Your task to perform on an android device: set the stopwatch Image 0: 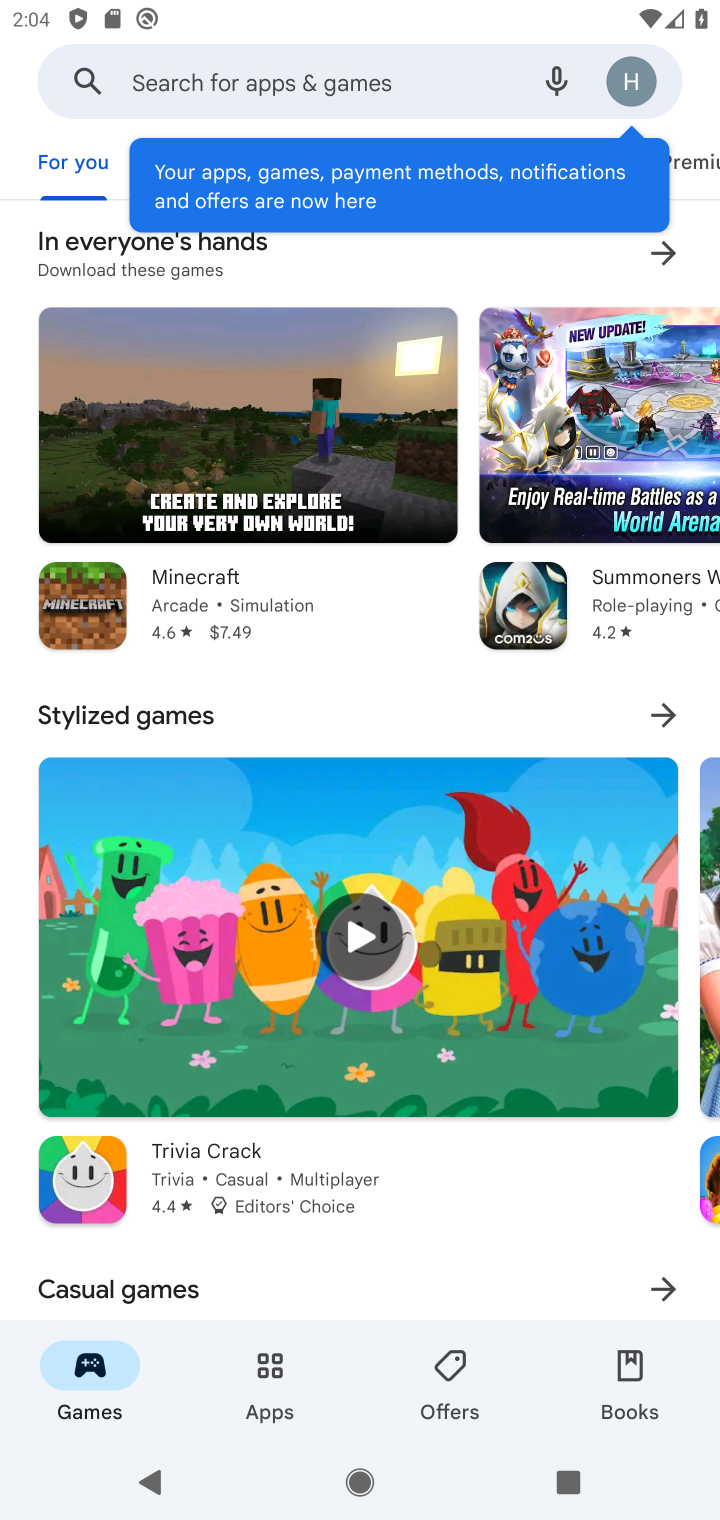
Step 0: press home button
Your task to perform on an android device: set the stopwatch Image 1: 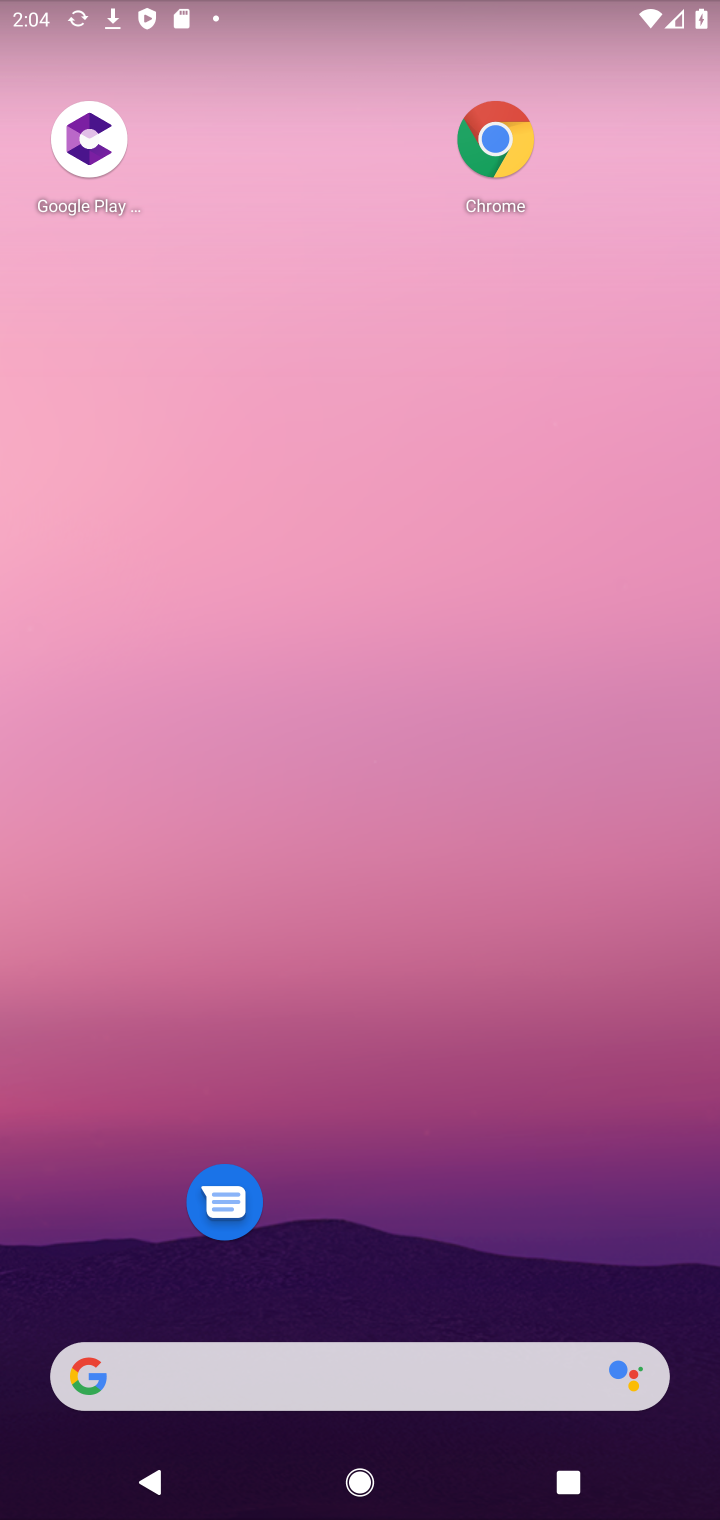
Step 1: drag from (416, 1384) to (431, 128)
Your task to perform on an android device: set the stopwatch Image 2: 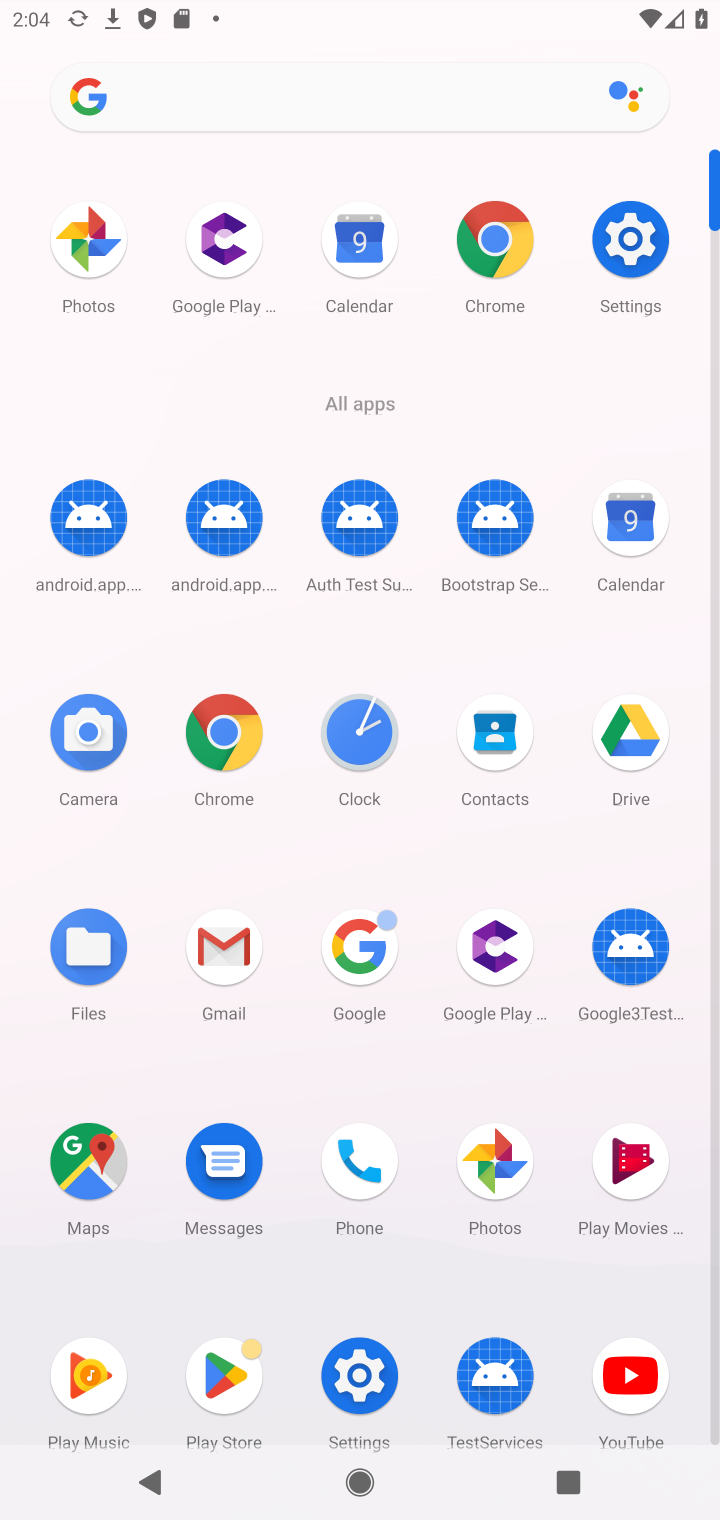
Step 2: click (361, 731)
Your task to perform on an android device: set the stopwatch Image 3: 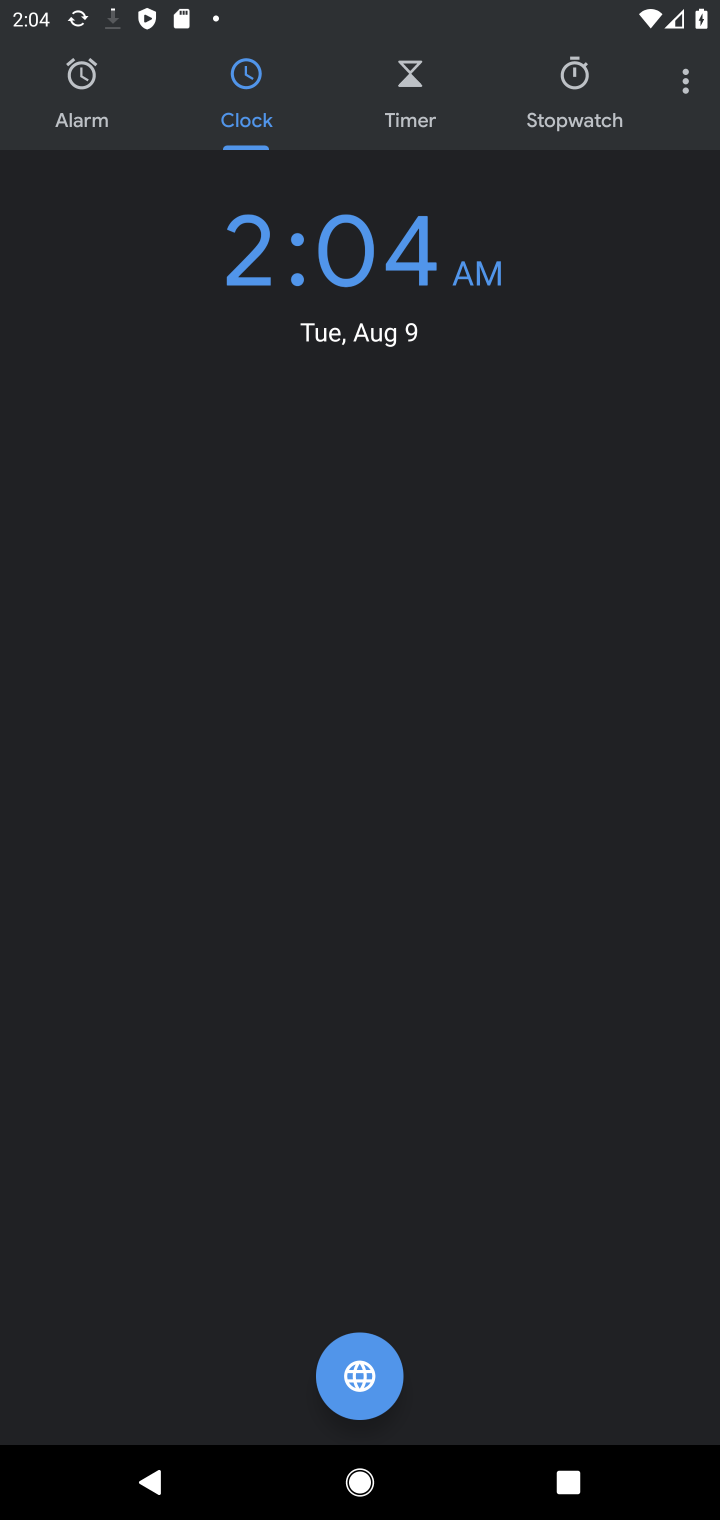
Step 3: click (573, 93)
Your task to perform on an android device: set the stopwatch Image 4: 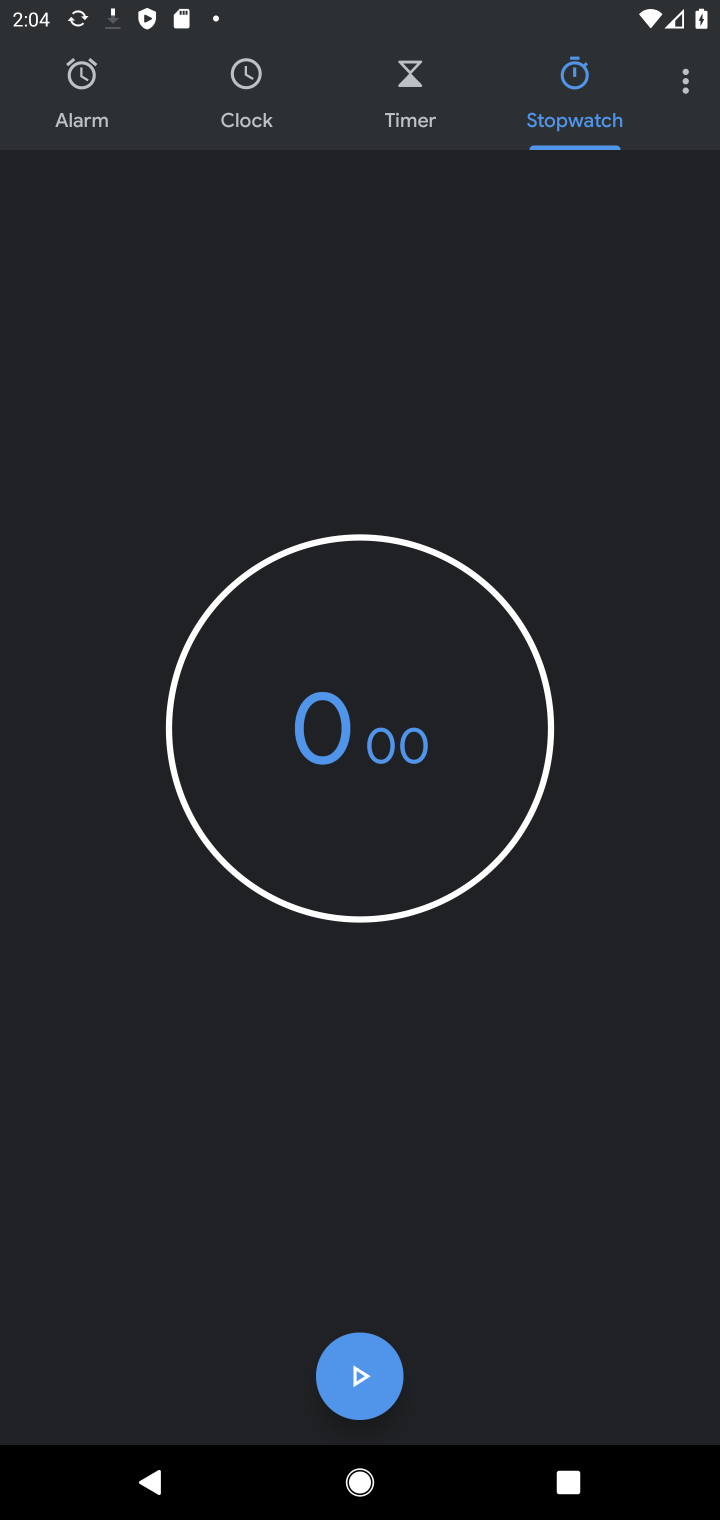
Step 4: click (369, 1354)
Your task to perform on an android device: set the stopwatch Image 5: 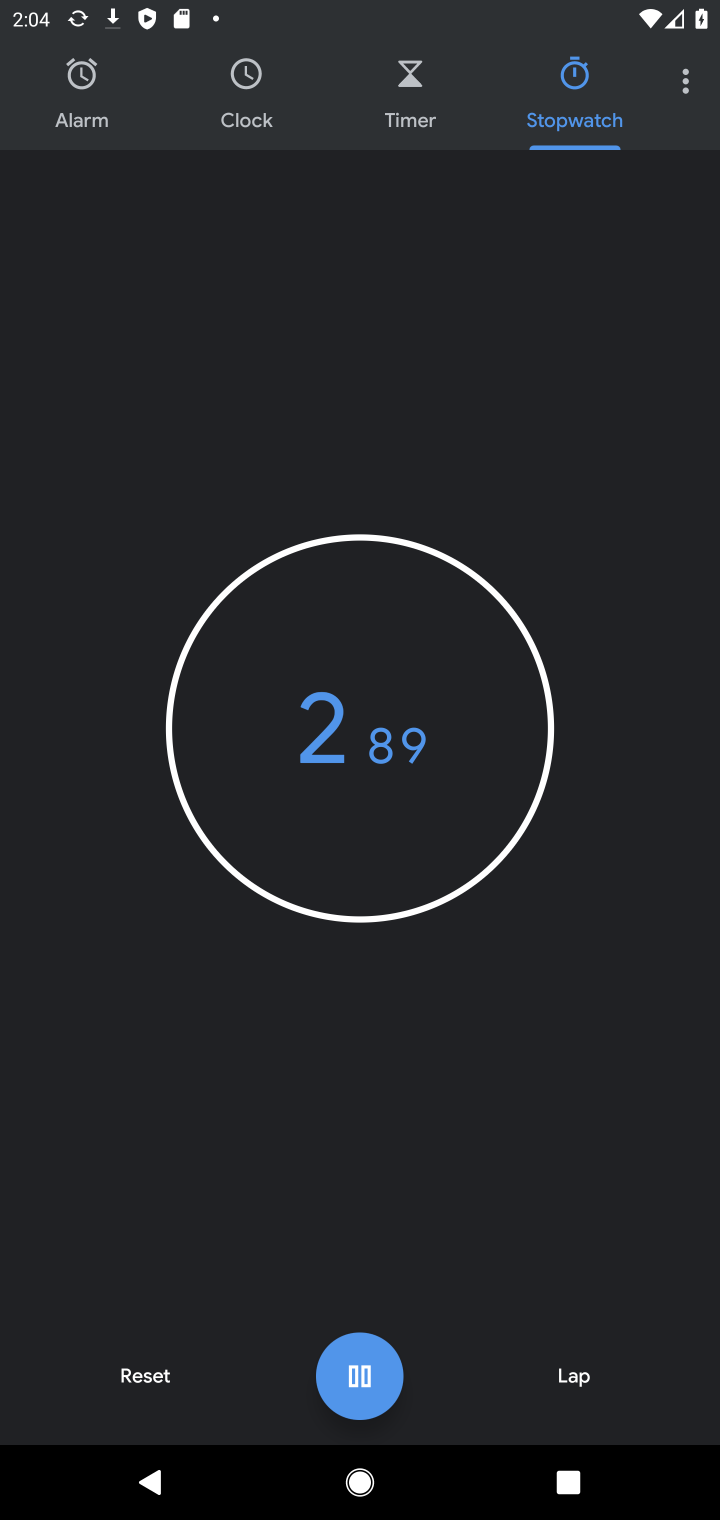
Step 5: task complete